Your task to perform on an android device: Clear the shopping cart on walmart.com. Search for macbook pro 15 inch on walmart.com, select the first entry, and add it to the cart. Image 0: 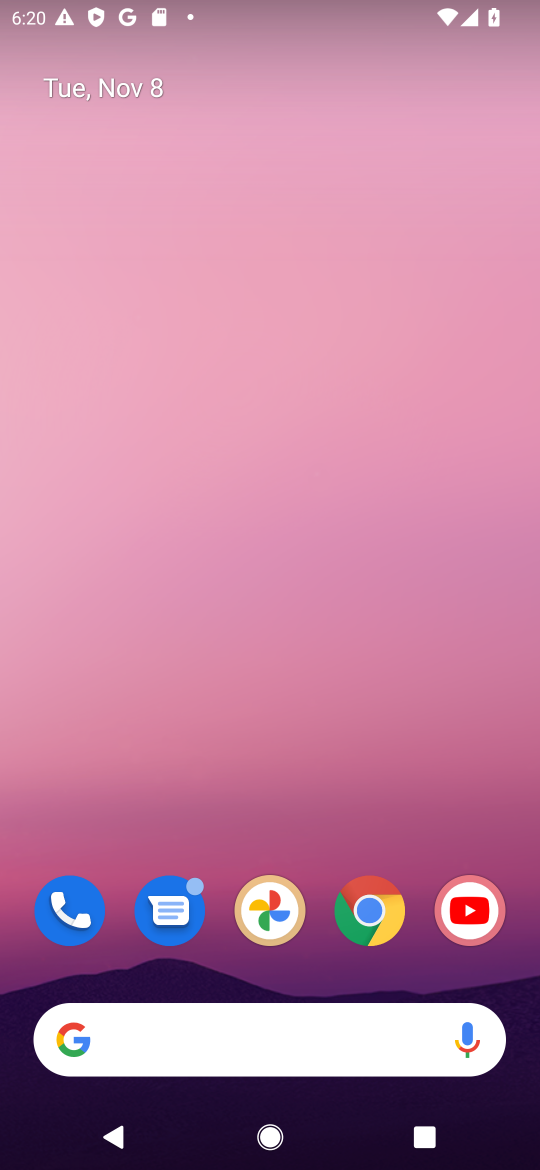
Step 0: click (363, 902)
Your task to perform on an android device: Clear the shopping cart on walmart.com. Search for macbook pro 15 inch on walmart.com, select the first entry, and add it to the cart. Image 1: 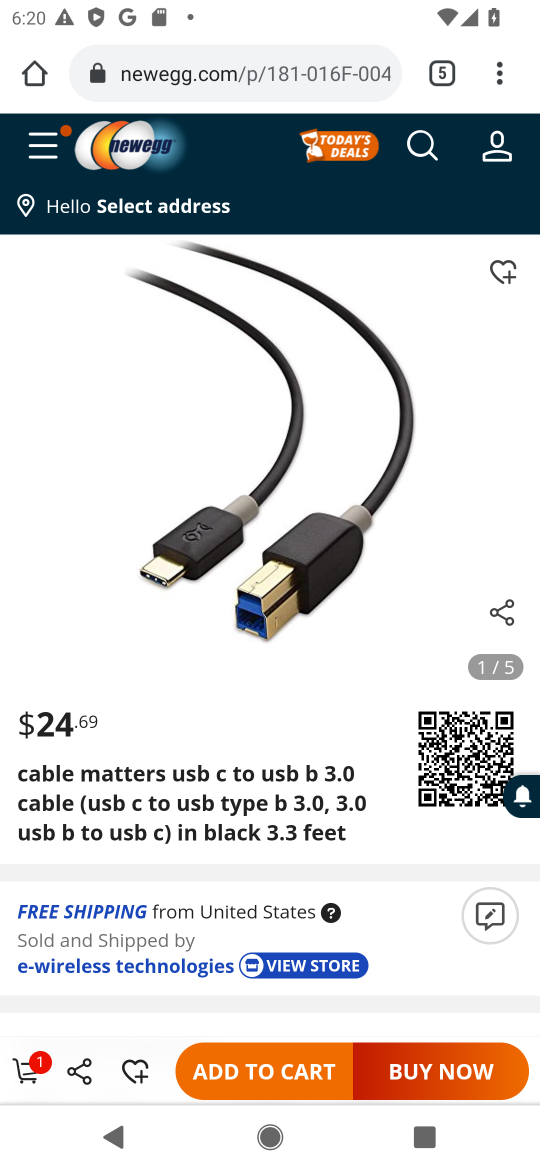
Step 1: click (443, 79)
Your task to perform on an android device: Clear the shopping cart on walmart.com. Search for macbook pro 15 inch on walmart.com, select the first entry, and add it to the cart. Image 2: 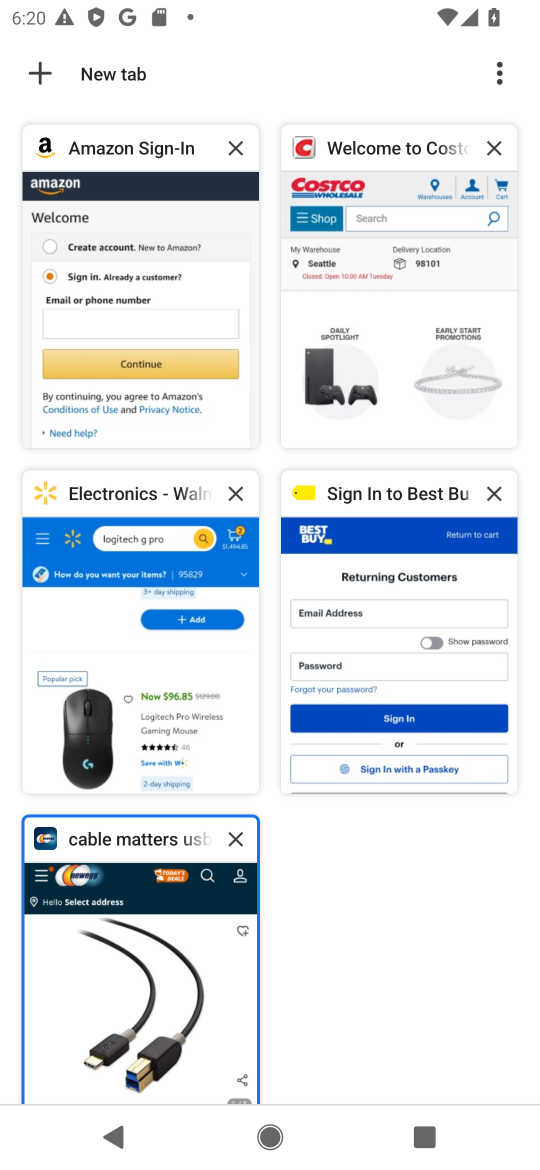
Step 2: click (116, 621)
Your task to perform on an android device: Clear the shopping cart on walmart.com. Search for macbook pro 15 inch on walmart.com, select the first entry, and add it to the cart. Image 3: 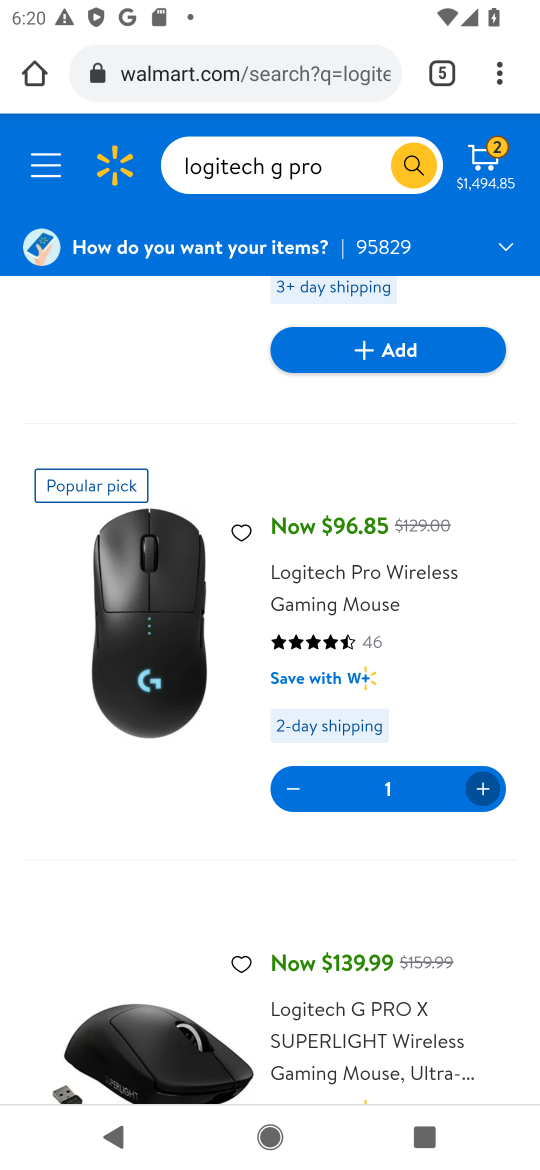
Step 3: click (488, 159)
Your task to perform on an android device: Clear the shopping cart on walmart.com. Search for macbook pro 15 inch on walmart.com, select the first entry, and add it to the cart. Image 4: 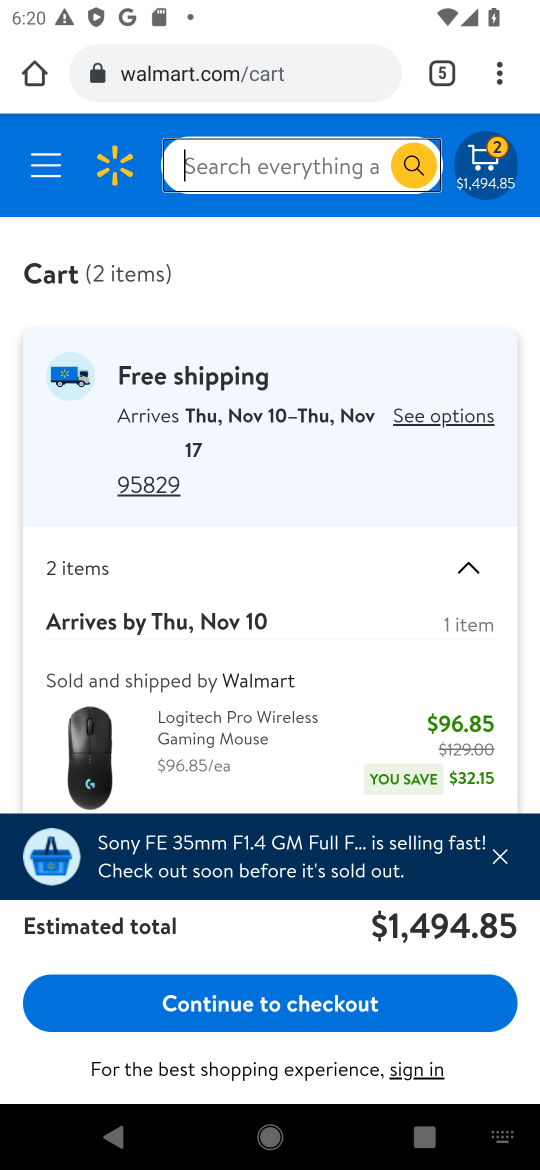
Step 4: click (500, 857)
Your task to perform on an android device: Clear the shopping cart on walmart.com. Search for macbook pro 15 inch on walmart.com, select the first entry, and add it to the cart. Image 5: 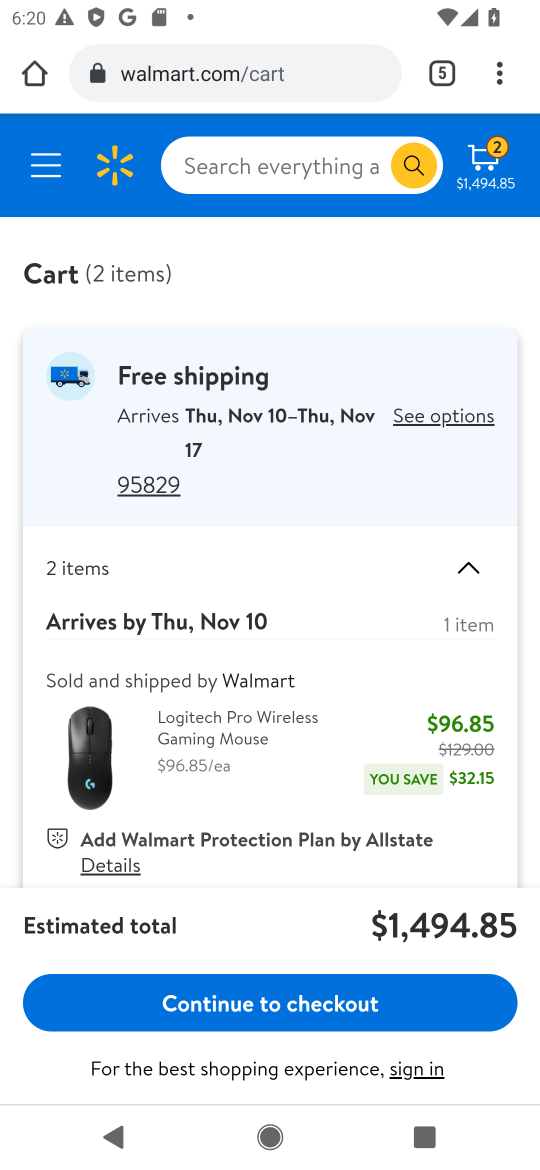
Step 5: drag from (150, 884) to (230, 590)
Your task to perform on an android device: Clear the shopping cart on walmart.com. Search for macbook pro 15 inch on walmart.com, select the first entry, and add it to the cart. Image 6: 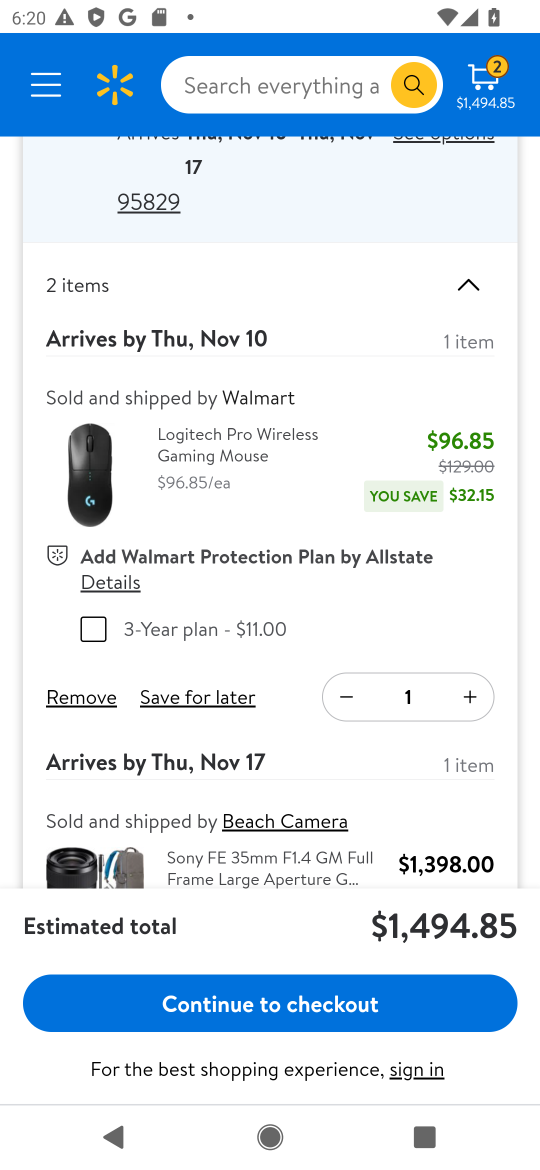
Step 6: click (88, 691)
Your task to perform on an android device: Clear the shopping cart on walmart.com. Search for macbook pro 15 inch on walmart.com, select the first entry, and add it to the cart. Image 7: 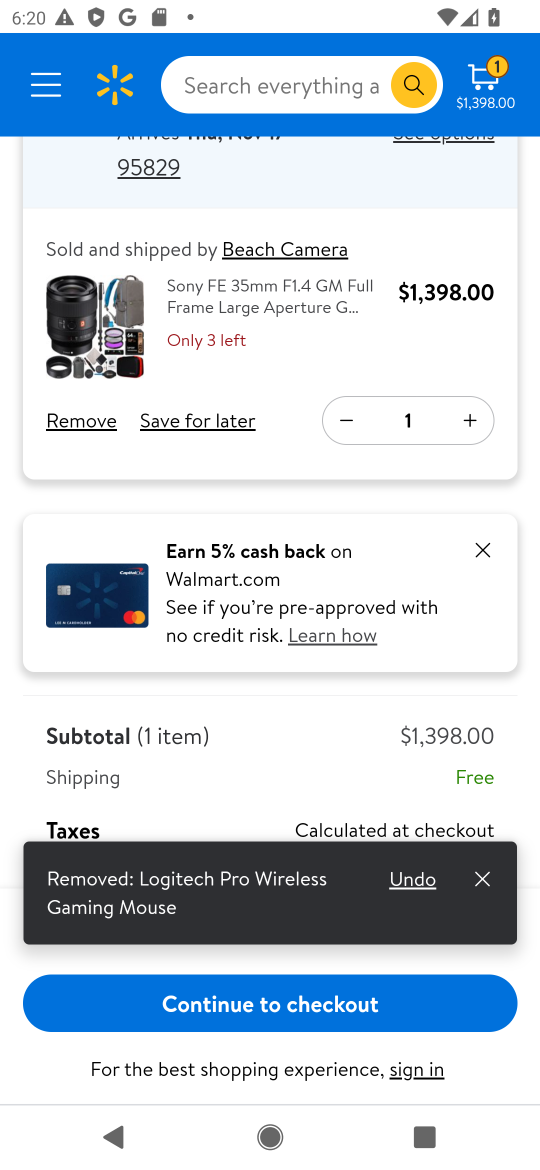
Step 7: click (68, 503)
Your task to perform on an android device: Clear the shopping cart on walmart.com. Search for macbook pro 15 inch on walmart.com, select the first entry, and add it to the cart. Image 8: 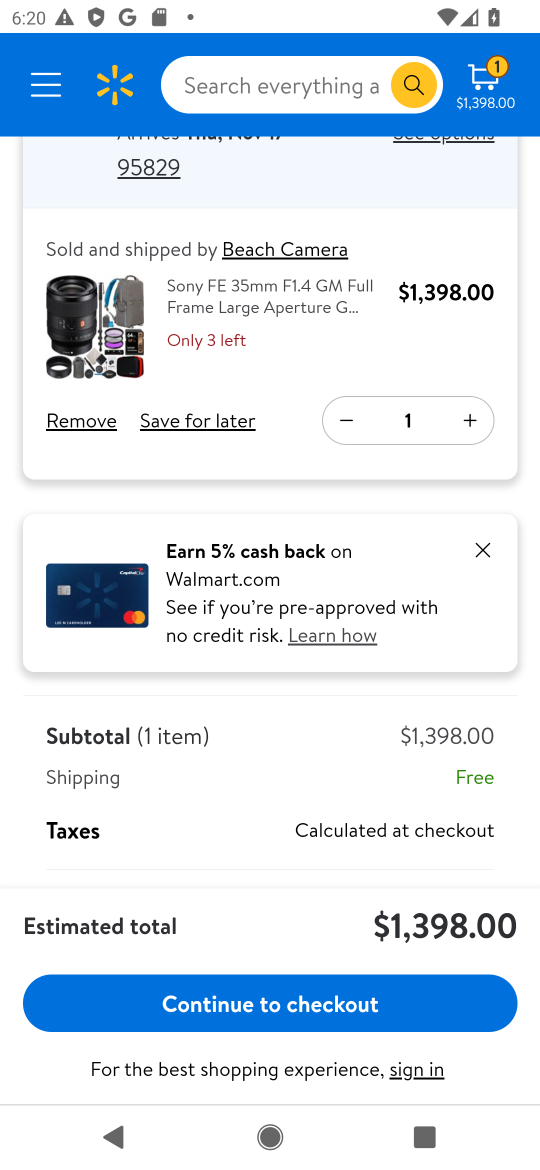
Step 8: click (68, 428)
Your task to perform on an android device: Clear the shopping cart on walmart.com. Search for macbook pro 15 inch on walmart.com, select the first entry, and add it to the cart. Image 9: 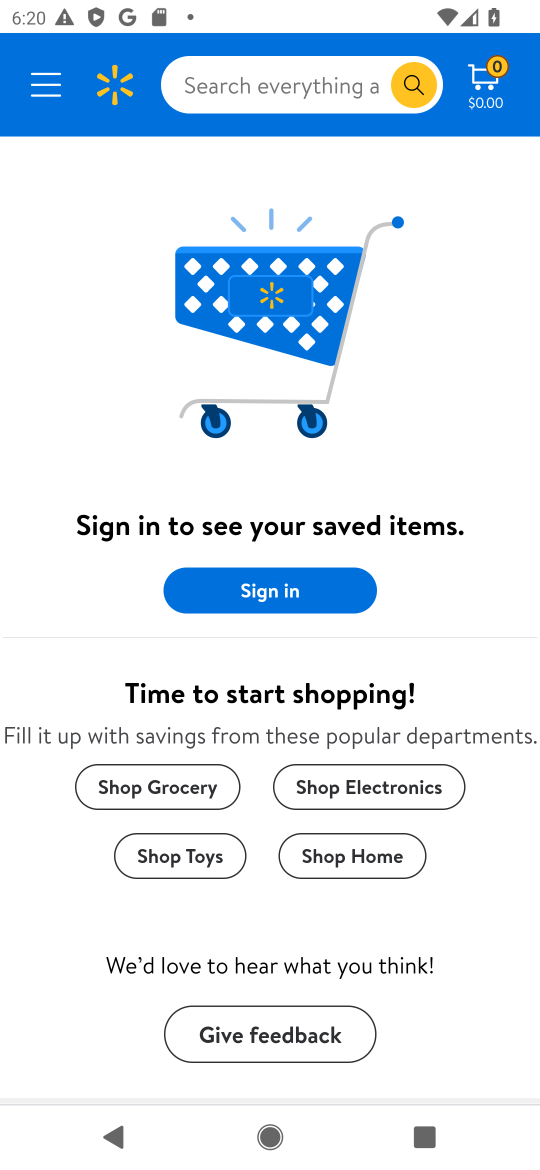
Step 9: click (295, 90)
Your task to perform on an android device: Clear the shopping cart on walmart.com. Search for macbook pro 15 inch on walmart.com, select the first entry, and add it to the cart. Image 10: 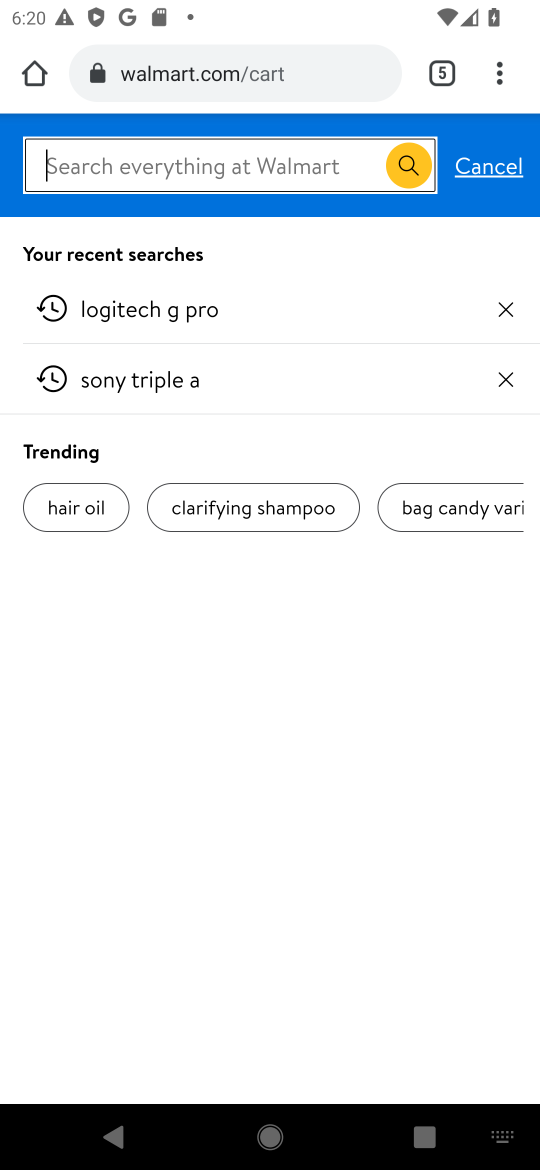
Step 10: type "macbook pro 15 inch"
Your task to perform on an android device: Clear the shopping cart on walmart.com. Search for macbook pro 15 inch on walmart.com, select the first entry, and add it to the cart. Image 11: 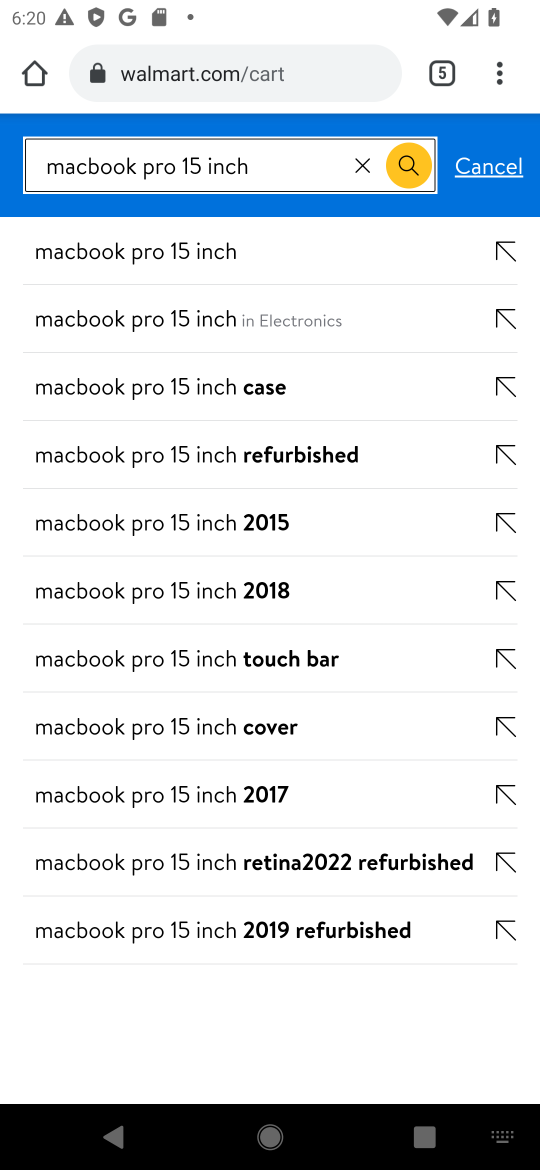
Step 11: click (230, 323)
Your task to perform on an android device: Clear the shopping cart on walmart.com. Search for macbook pro 15 inch on walmart.com, select the first entry, and add it to the cart. Image 12: 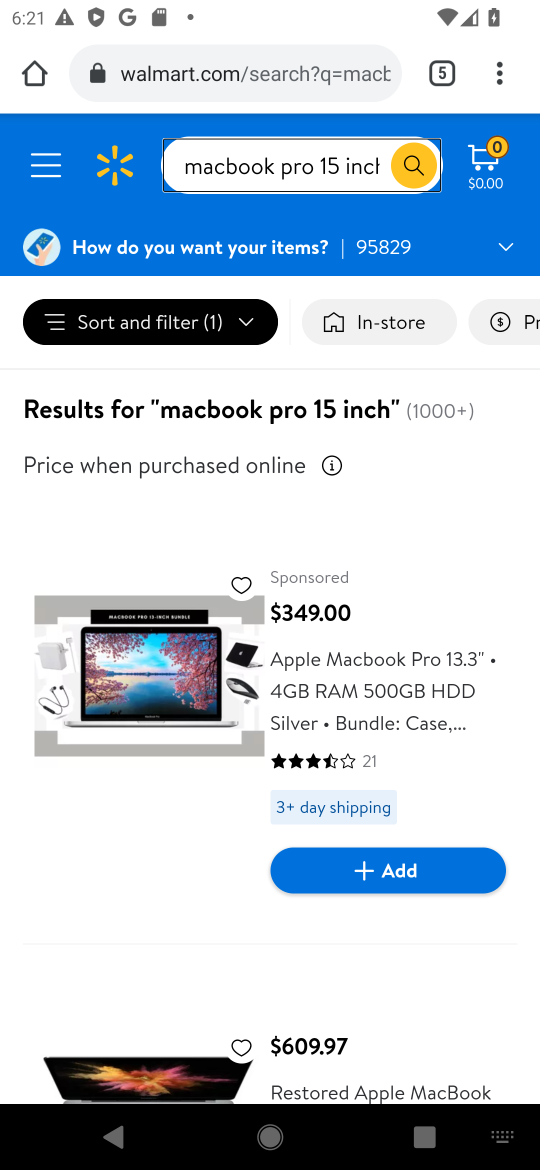
Step 12: drag from (359, 980) to (412, 416)
Your task to perform on an android device: Clear the shopping cart on walmart.com. Search for macbook pro 15 inch on walmart.com, select the first entry, and add it to the cart. Image 13: 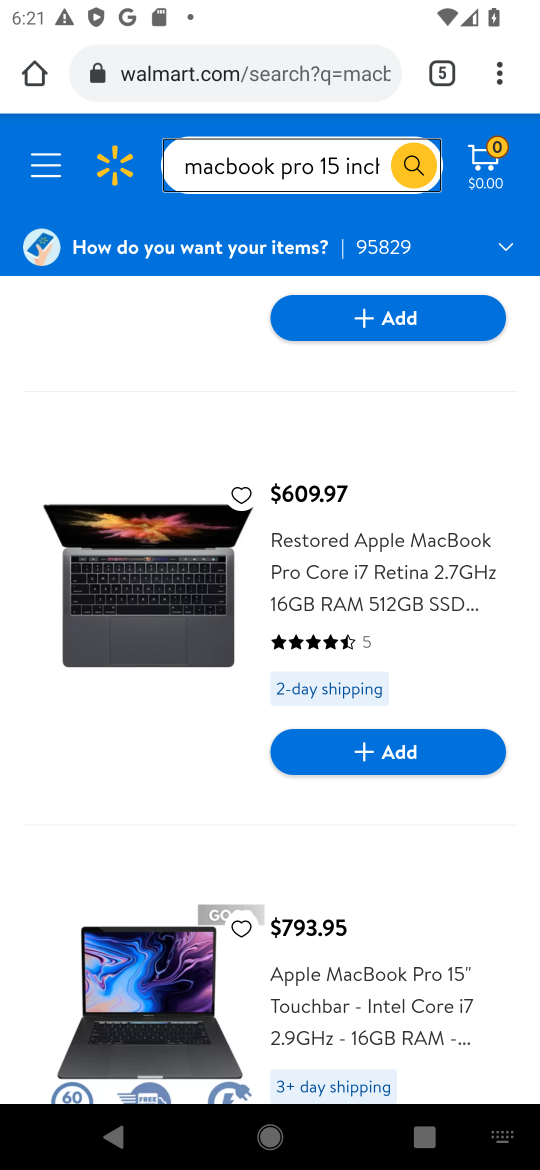
Step 13: drag from (404, 937) to (451, 368)
Your task to perform on an android device: Clear the shopping cart on walmart.com. Search for macbook pro 15 inch on walmart.com, select the first entry, and add it to the cart. Image 14: 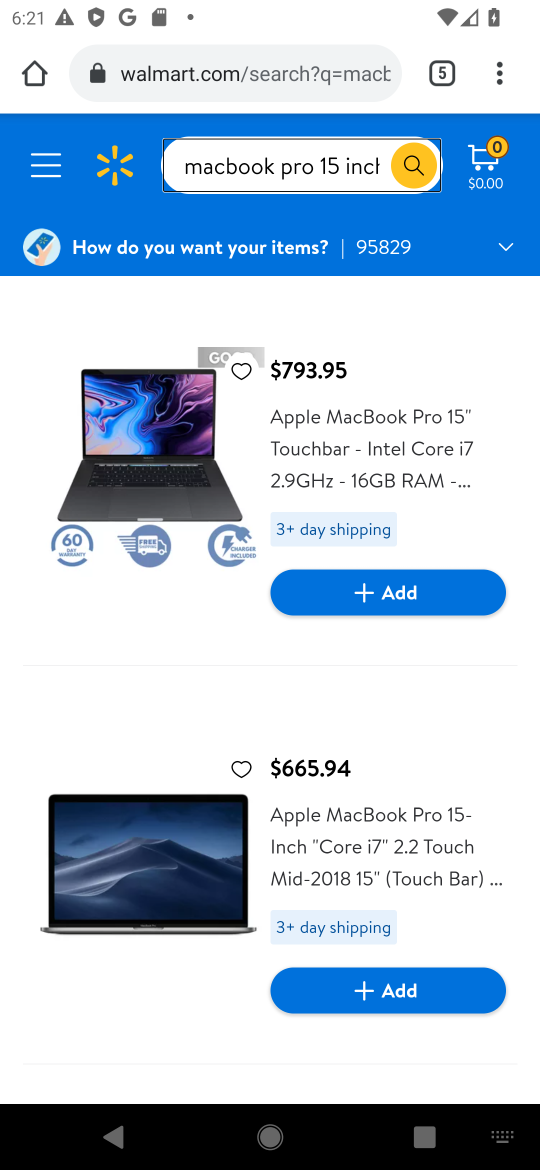
Step 14: click (372, 993)
Your task to perform on an android device: Clear the shopping cart on walmart.com. Search for macbook pro 15 inch on walmart.com, select the first entry, and add it to the cart. Image 15: 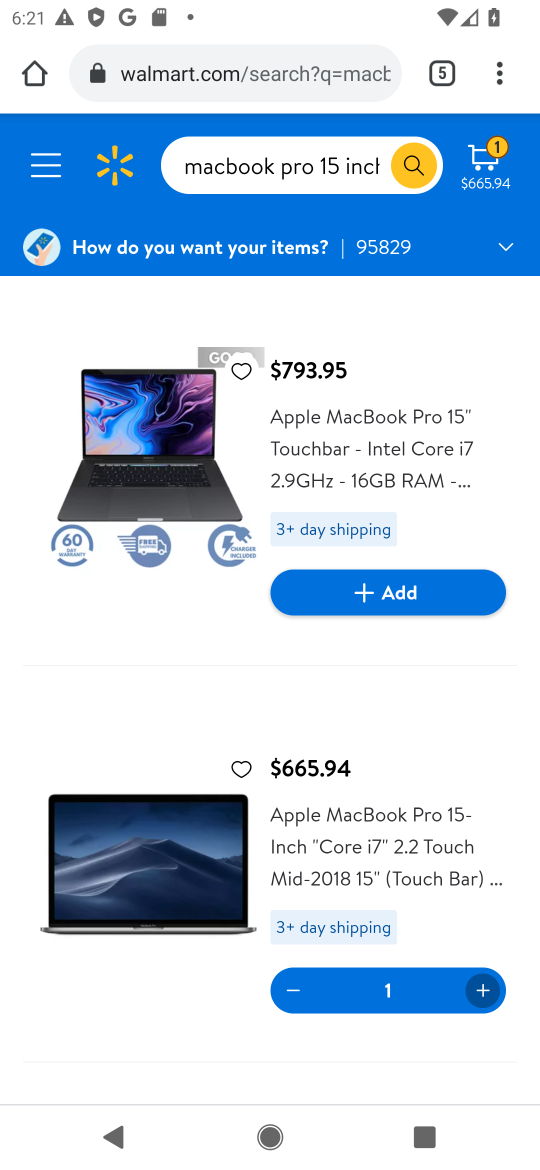
Step 15: task complete